Your task to perform on an android device: snooze an email in the gmail app Image 0: 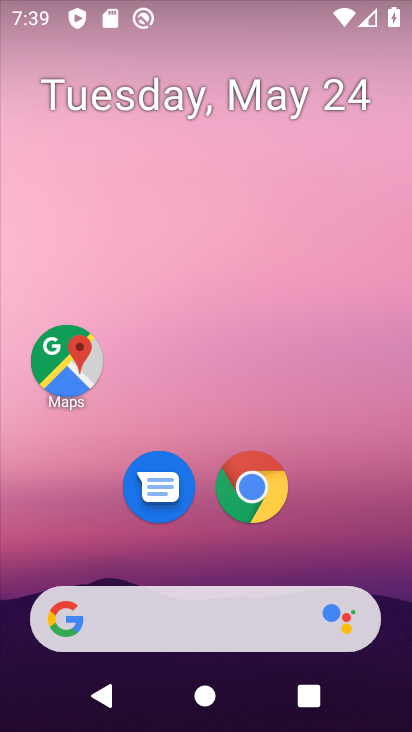
Step 0: drag from (359, 523) to (166, 82)
Your task to perform on an android device: snooze an email in the gmail app Image 1: 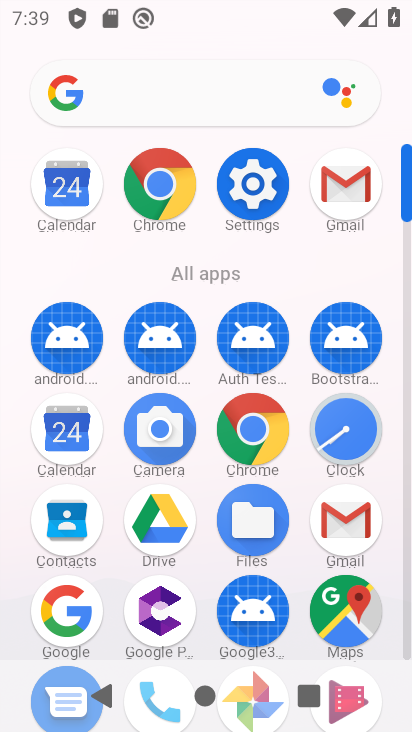
Step 1: click (344, 528)
Your task to perform on an android device: snooze an email in the gmail app Image 2: 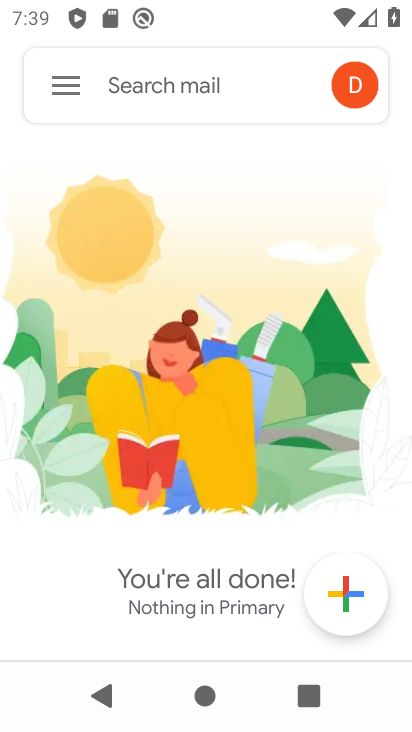
Step 2: click (57, 91)
Your task to perform on an android device: snooze an email in the gmail app Image 3: 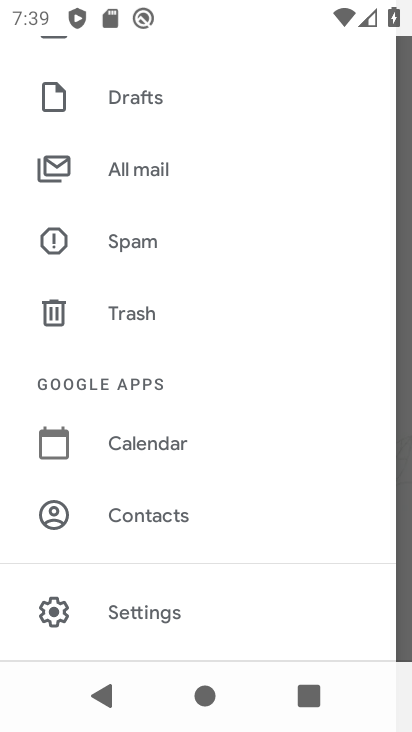
Step 3: drag from (212, 152) to (267, 542)
Your task to perform on an android device: snooze an email in the gmail app Image 4: 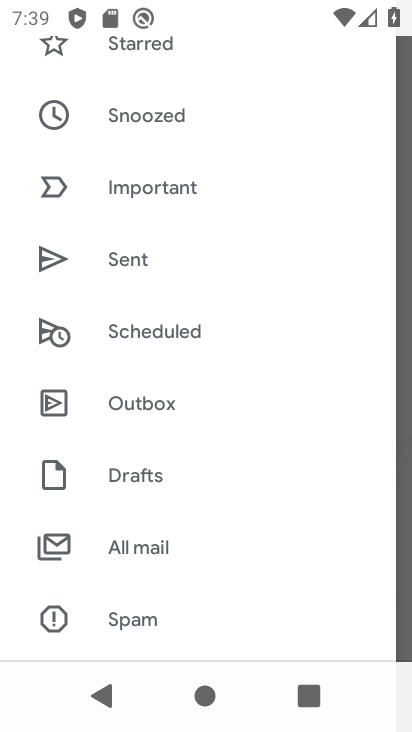
Step 4: drag from (220, 99) to (291, 552)
Your task to perform on an android device: snooze an email in the gmail app Image 5: 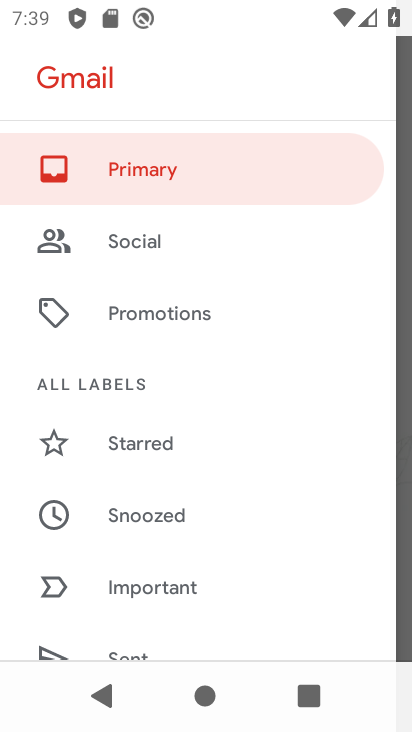
Step 5: click (189, 184)
Your task to perform on an android device: snooze an email in the gmail app Image 6: 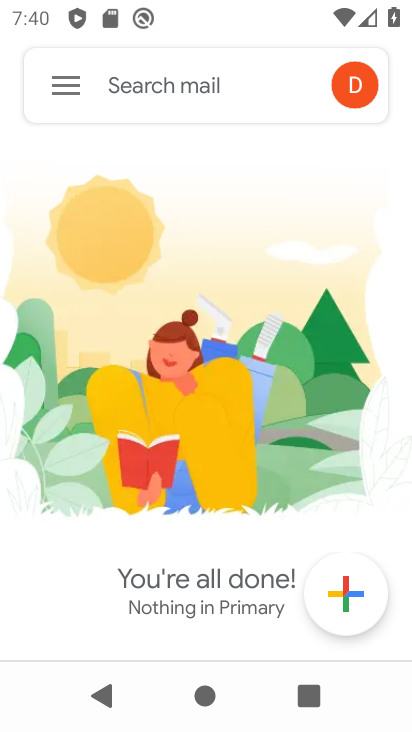
Step 6: task complete